Your task to perform on an android device: Open network settings Image 0: 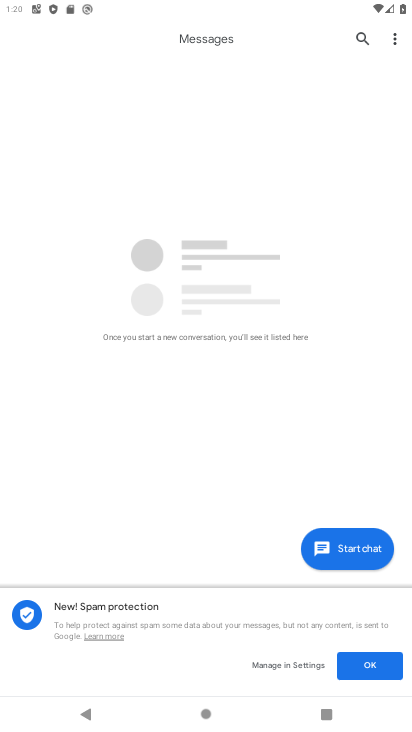
Step 0: press home button
Your task to perform on an android device: Open network settings Image 1: 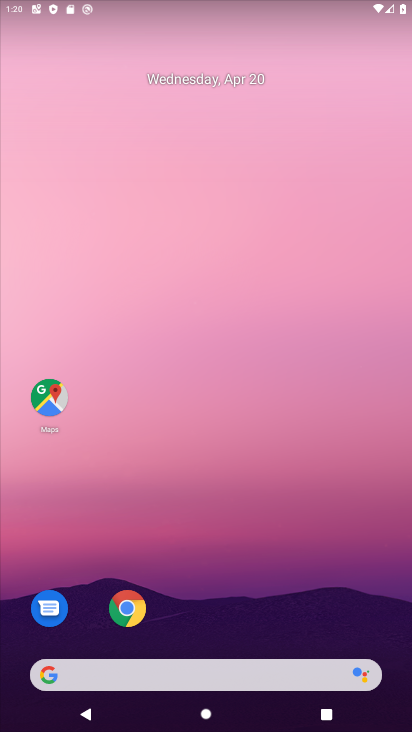
Step 1: drag from (207, 729) to (188, 54)
Your task to perform on an android device: Open network settings Image 2: 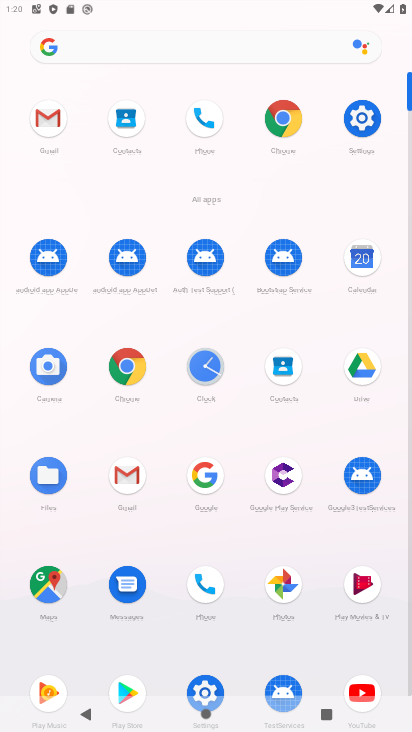
Step 2: click (365, 122)
Your task to perform on an android device: Open network settings Image 3: 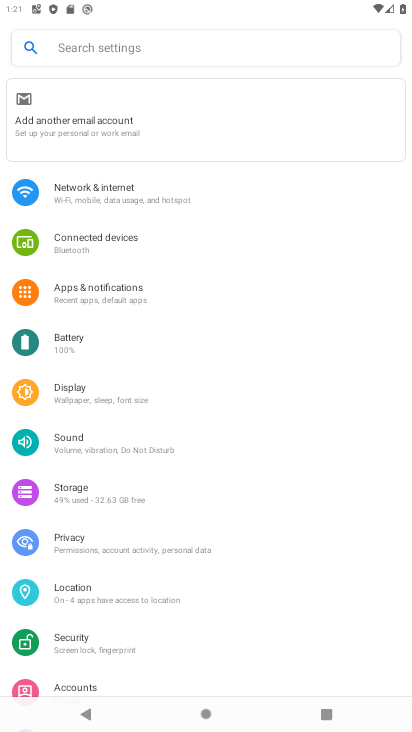
Step 3: click (112, 197)
Your task to perform on an android device: Open network settings Image 4: 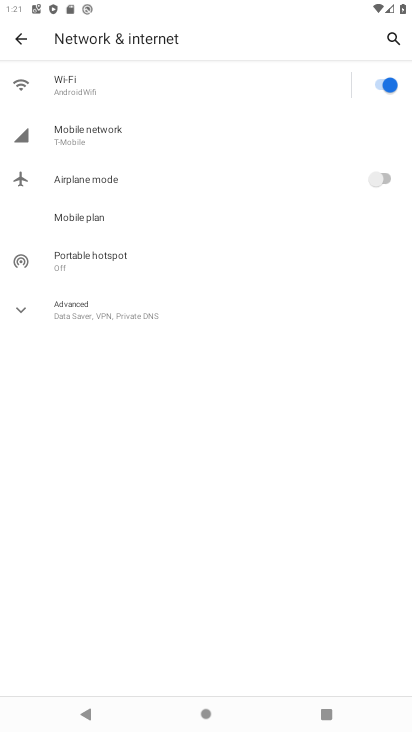
Step 4: task complete